Your task to perform on an android device: turn on priority inbox in the gmail app Image 0: 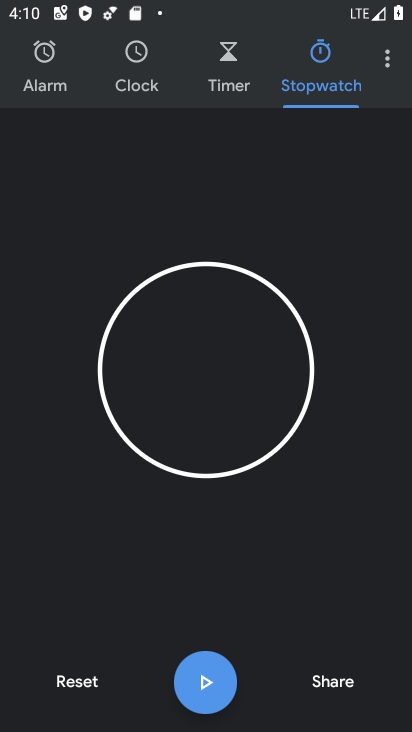
Step 0: press home button
Your task to perform on an android device: turn on priority inbox in the gmail app Image 1: 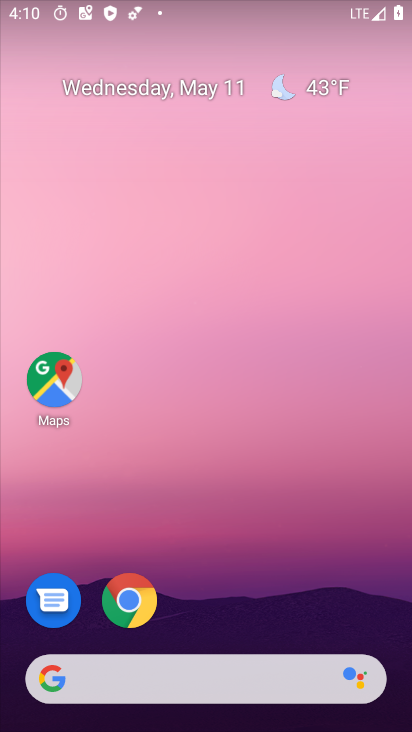
Step 1: drag from (346, 416) to (257, 49)
Your task to perform on an android device: turn on priority inbox in the gmail app Image 2: 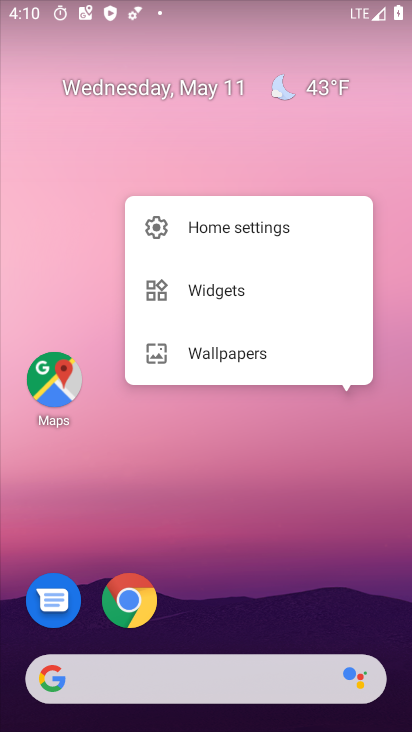
Step 2: drag from (280, 607) to (229, 12)
Your task to perform on an android device: turn on priority inbox in the gmail app Image 3: 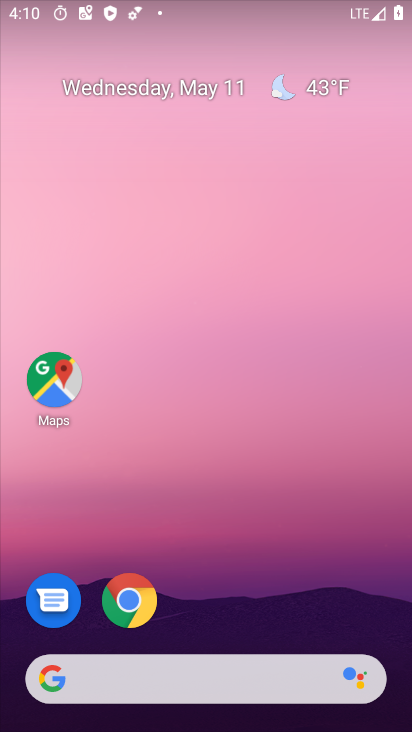
Step 3: drag from (347, 573) to (310, 5)
Your task to perform on an android device: turn on priority inbox in the gmail app Image 4: 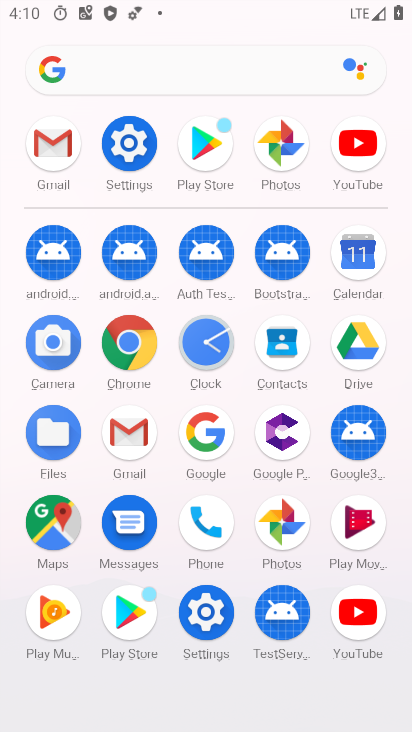
Step 4: click (53, 151)
Your task to perform on an android device: turn on priority inbox in the gmail app Image 5: 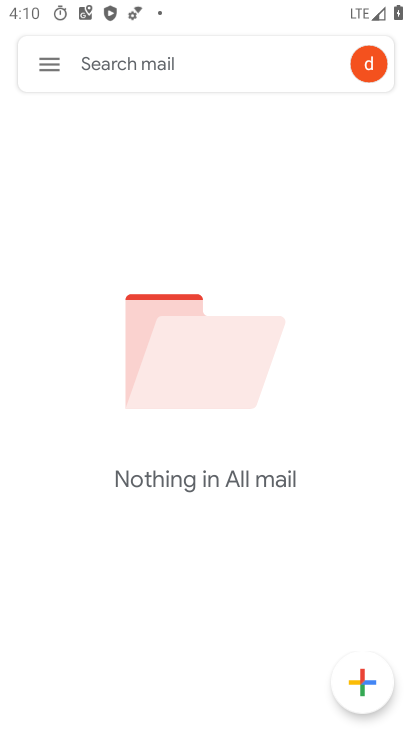
Step 5: click (42, 74)
Your task to perform on an android device: turn on priority inbox in the gmail app Image 6: 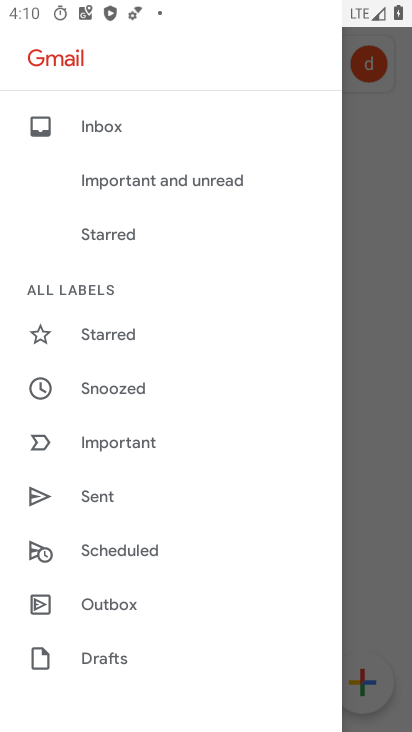
Step 6: drag from (184, 415) to (177, 264)
Your task to perform on an android device: turn on priority inbox in the gmail app Image 7: 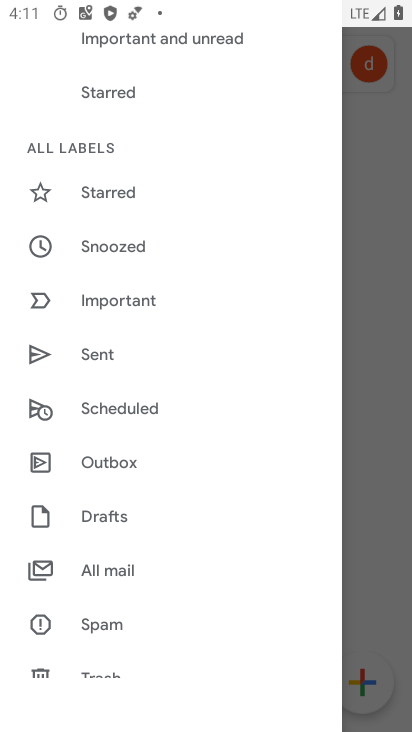
Step 7: drag from (211, 596) to (210, 165)
Your task to perform on an android device: turn on priority inbox in the gmail app Image 8: 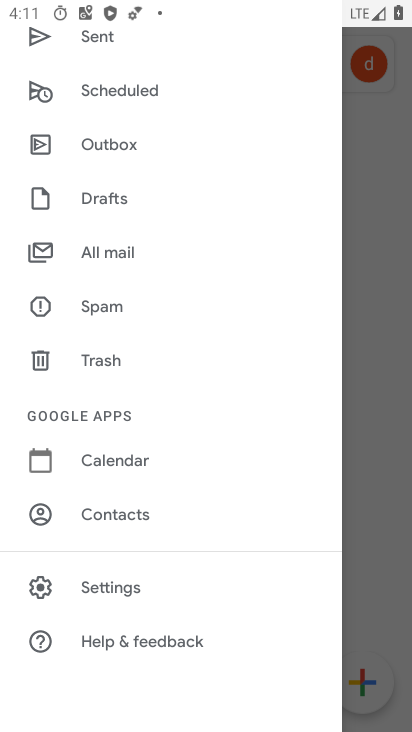
Step 8: click (105, 590)
Your task to perform on an android device: turn on priority inbox in the gmail app Image 9: 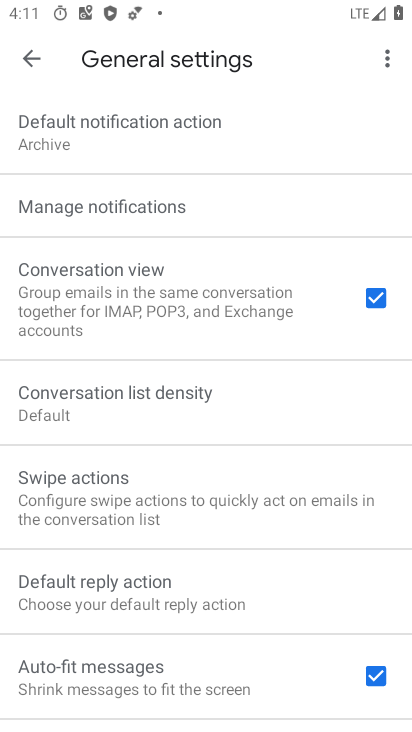
Step 9: click (26, 52)
Your task to perform on an android device: turn on priority inbox in the gmail app Image 10: 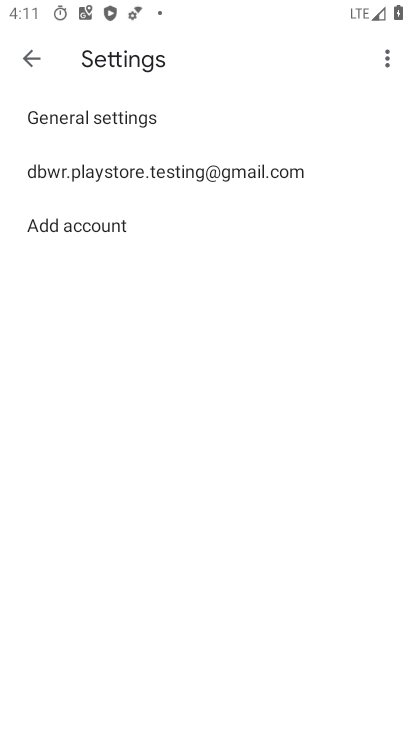
Step 10: click (56, 171)
Your task to perform on an android device: turn on priority inbox in the gmail app Image 11: 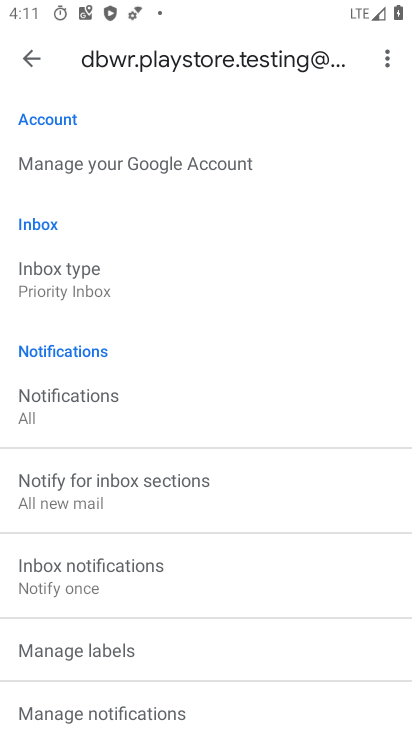
Step 11: click (62, 287)
Your task to perform on an android device: turn on priority inbox in the gmail app Image 12: 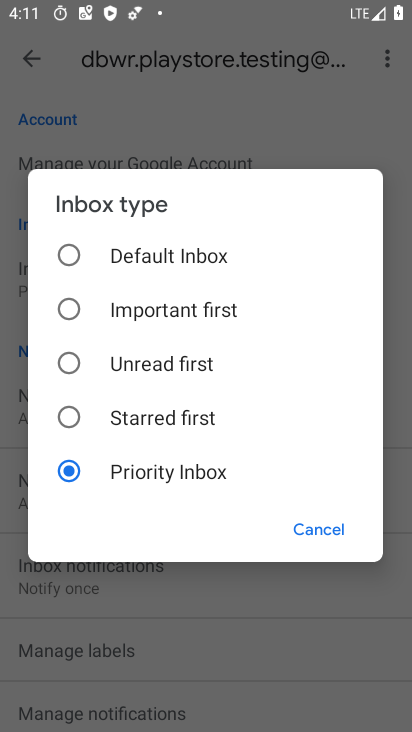
Step 12: click (75, 288)
Your task to perform on an android device: turn on priority inbox in the gmail app Image 13: 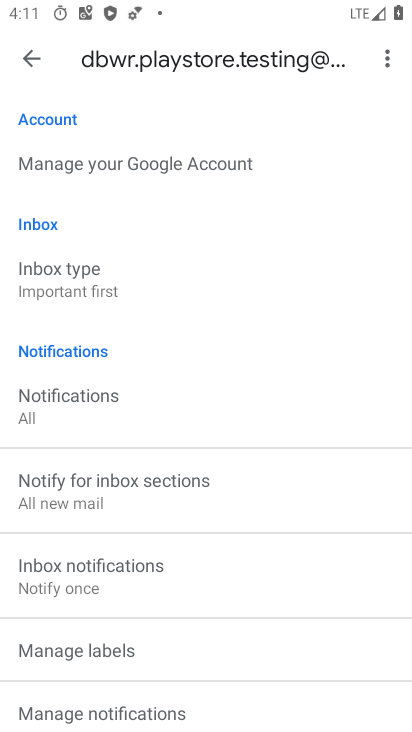
Step 13: task complete